Your task to perform on an android device: turn on showing notifications on the lock screen Image 0: 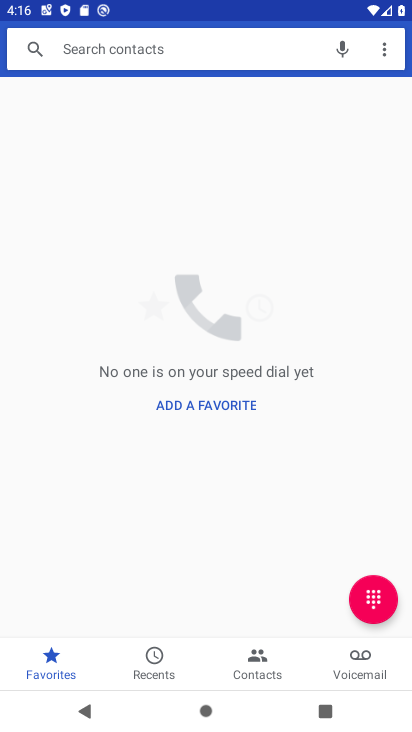
Step 0: press home button
Your task to perform on an android device: turn on showing notifications on the lock screen Image 1: 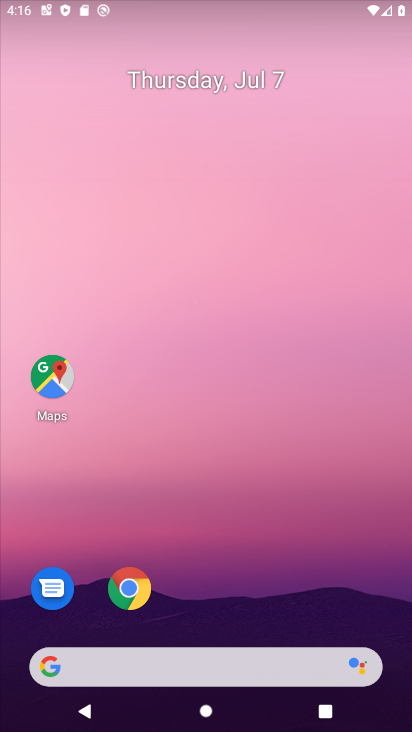
Step 1: drag from (283, 653) to (361, 66)
Your task to perform on an android device: turn on showing notifications on the lock screen Image 2: 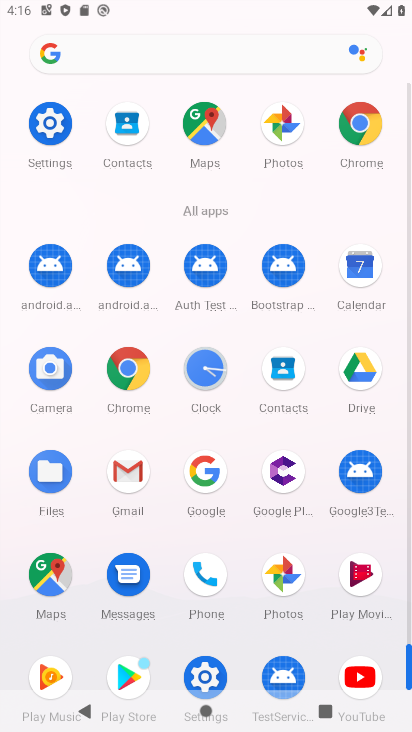
Step 2: click (63, 116)
Your task to perform on an android device: turn on showing notifications on the lock screen Image 3: 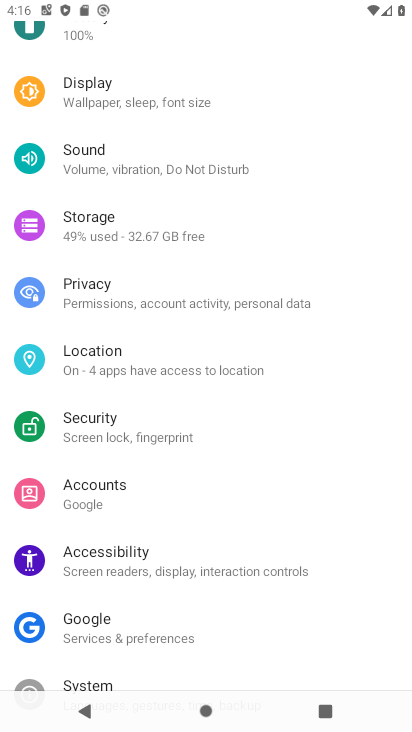
Step 3: drag from (122, 171) to (84, 523)
Your task to perform on an android device: turn on showing notifications on the lock screen Image 4: 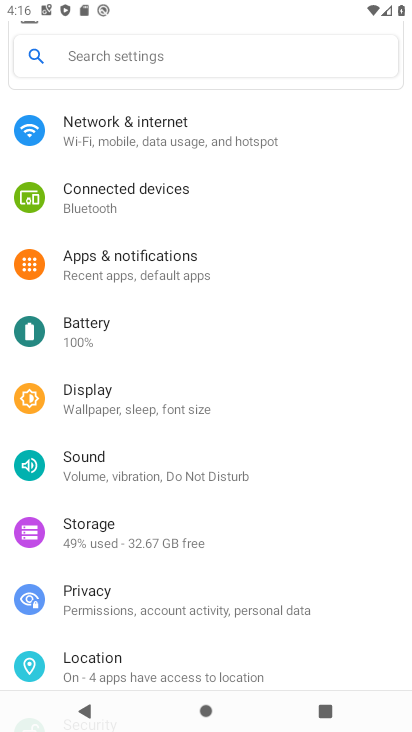
Step 4: click (104, 264)
Your task to perform on an android device: turn on showing notifications on the lock screen Image 5: 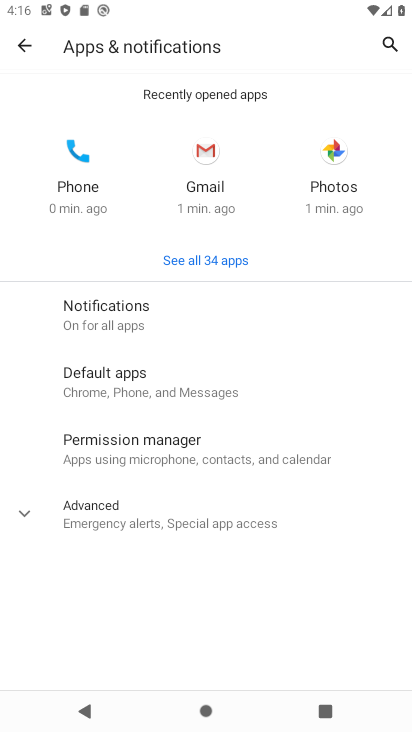
Step 5: click (114, 327)
Your task to perform on an android device: turn on showing notifications on the lock screen Image 6: 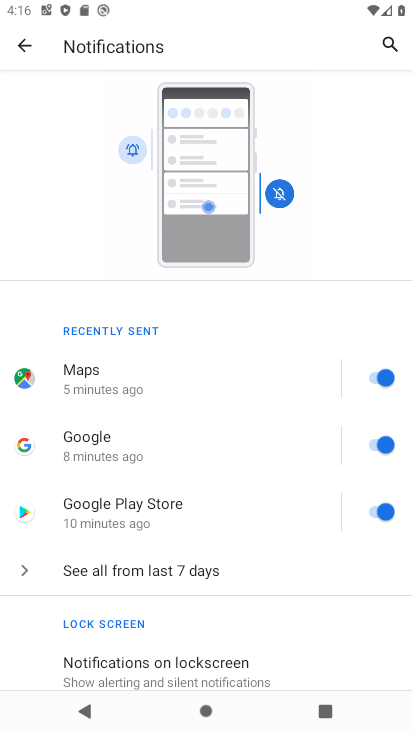
Step 6: drag from (219, 622) to (249, 287)
Your task to perform on an android device: turn on showing notifications on the lock screen Image 7: 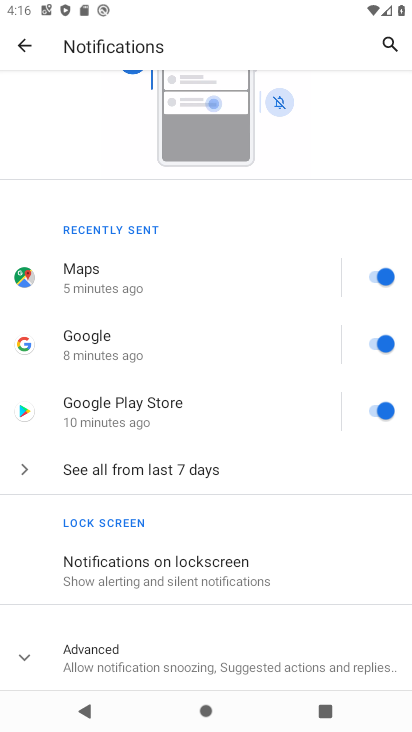
Step 7: click (280, 570)
Your task to perform on an android device: turn on showing notifications on the lock screen Image 8: 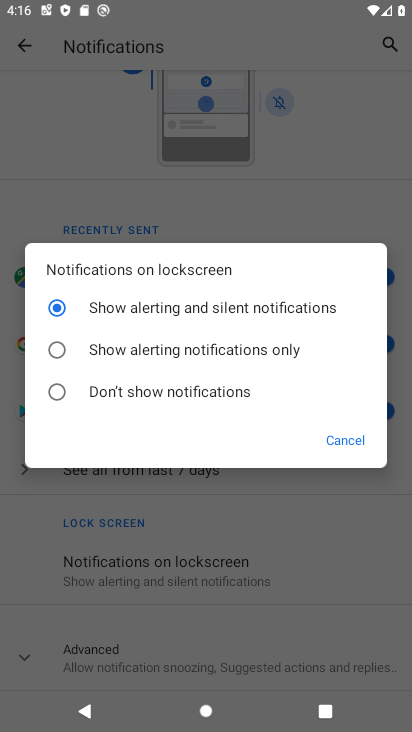
Step 8: task complete